Your task to perform on an android device: Clear all items from cart on costco. Add "usb-c to usb-b" to the cart on costco Image 0: 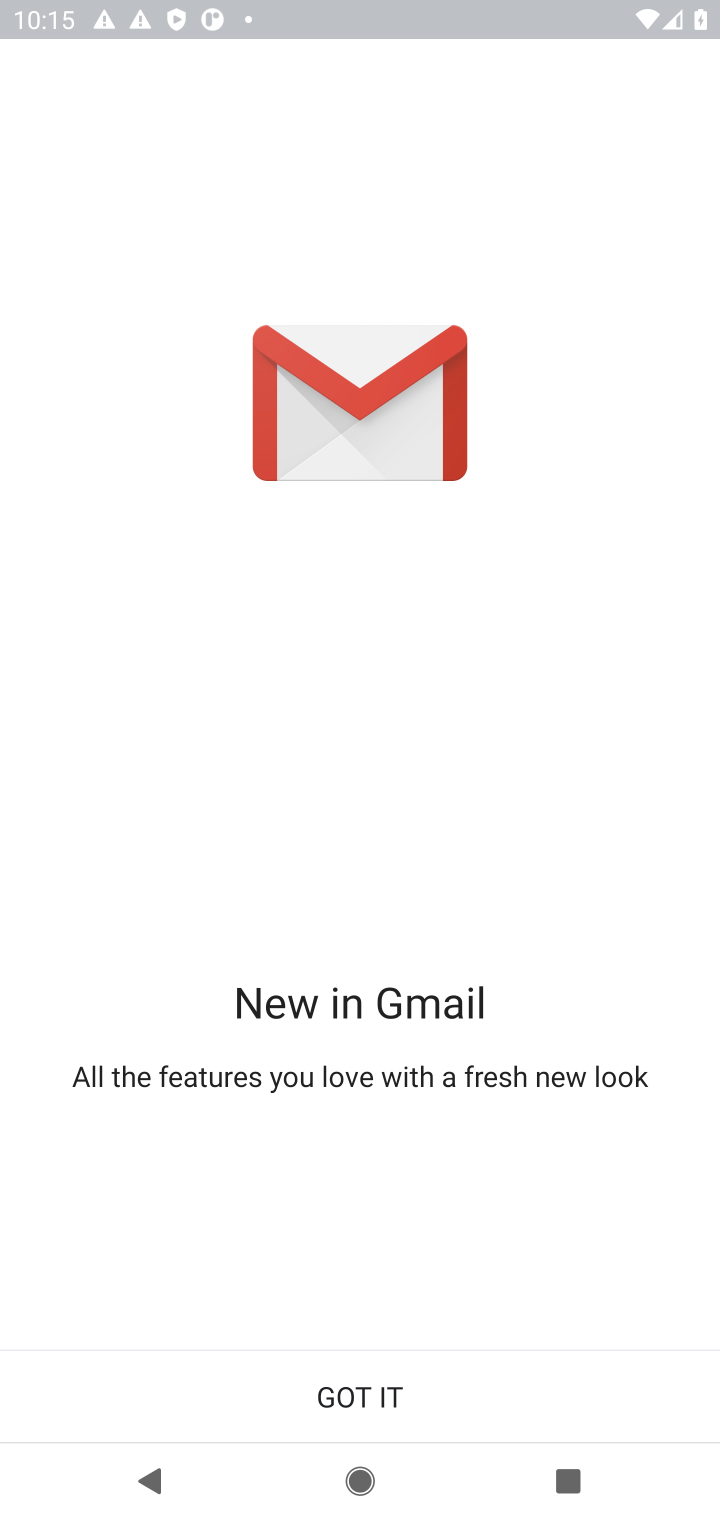
Step 0: press home button
Your task to perform on an android device: Clear all items from cart on costco. Add "usb-c to usb-b" to the cart on costco Image 1: 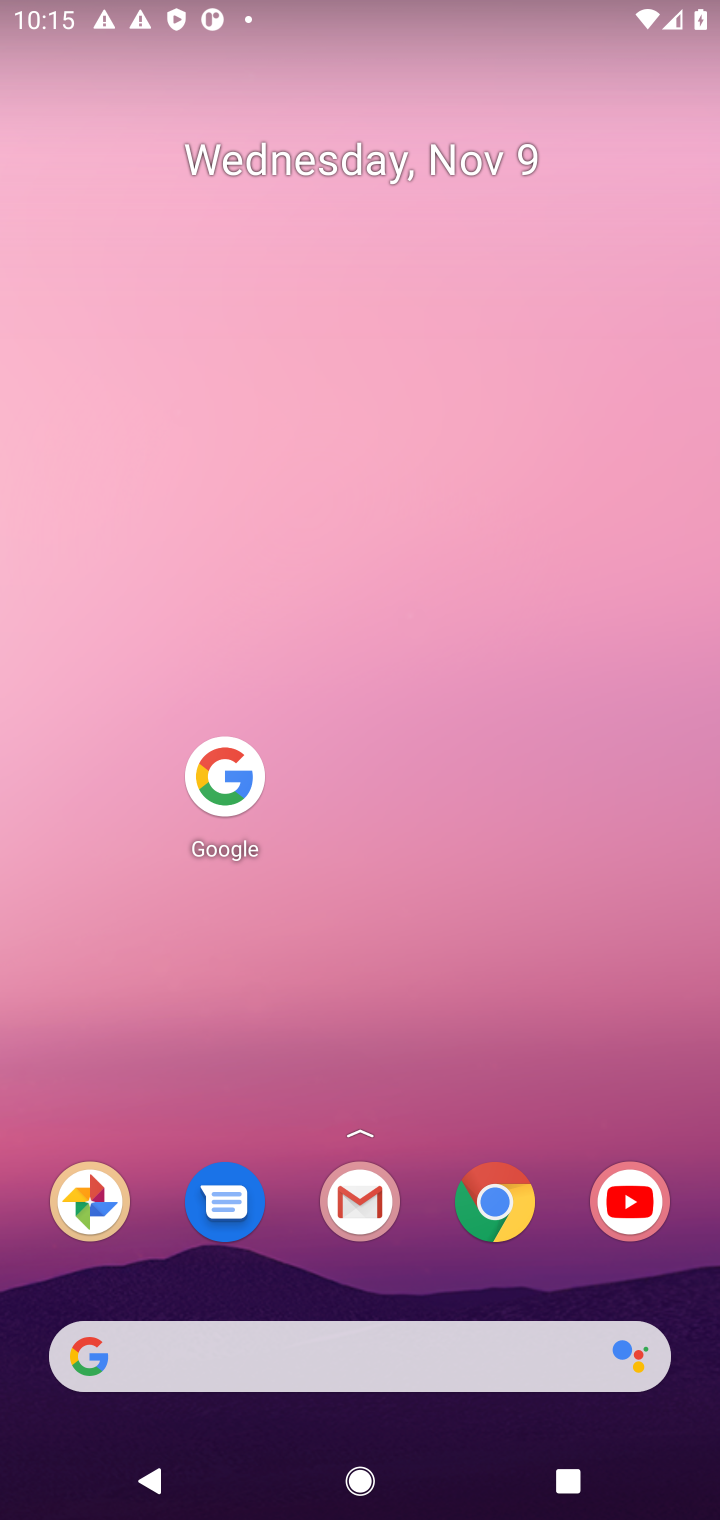
Step 1: click (219, 761)
Your task to perform on an android device: Clear all items from cart on costco. Add "usb-c to usb-b" to the cart on costco Image 2: 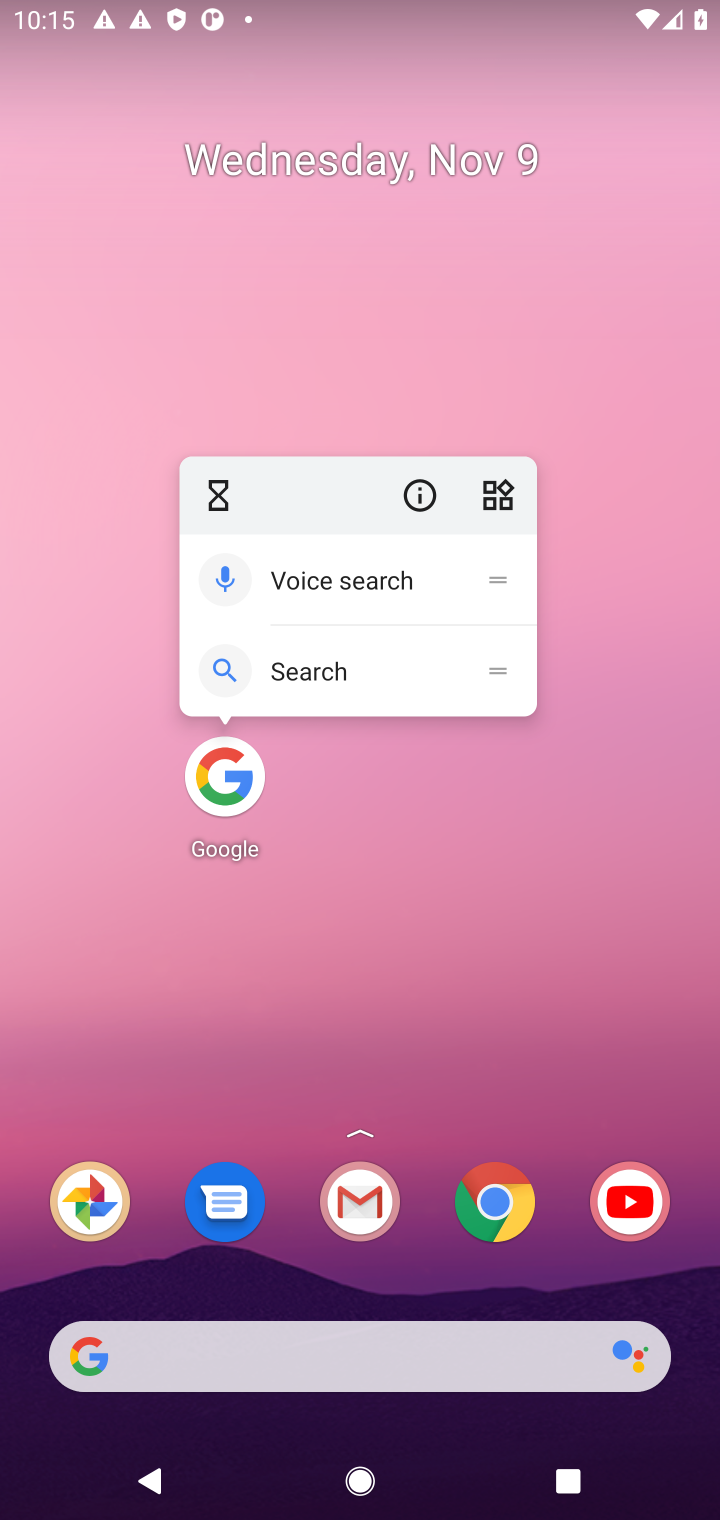
Step 2: click (219, 765)
Your task to perform on an android device: Clear all items from cart on costco. Add "usb-c to usb-b" to the cart on costco Image 3: 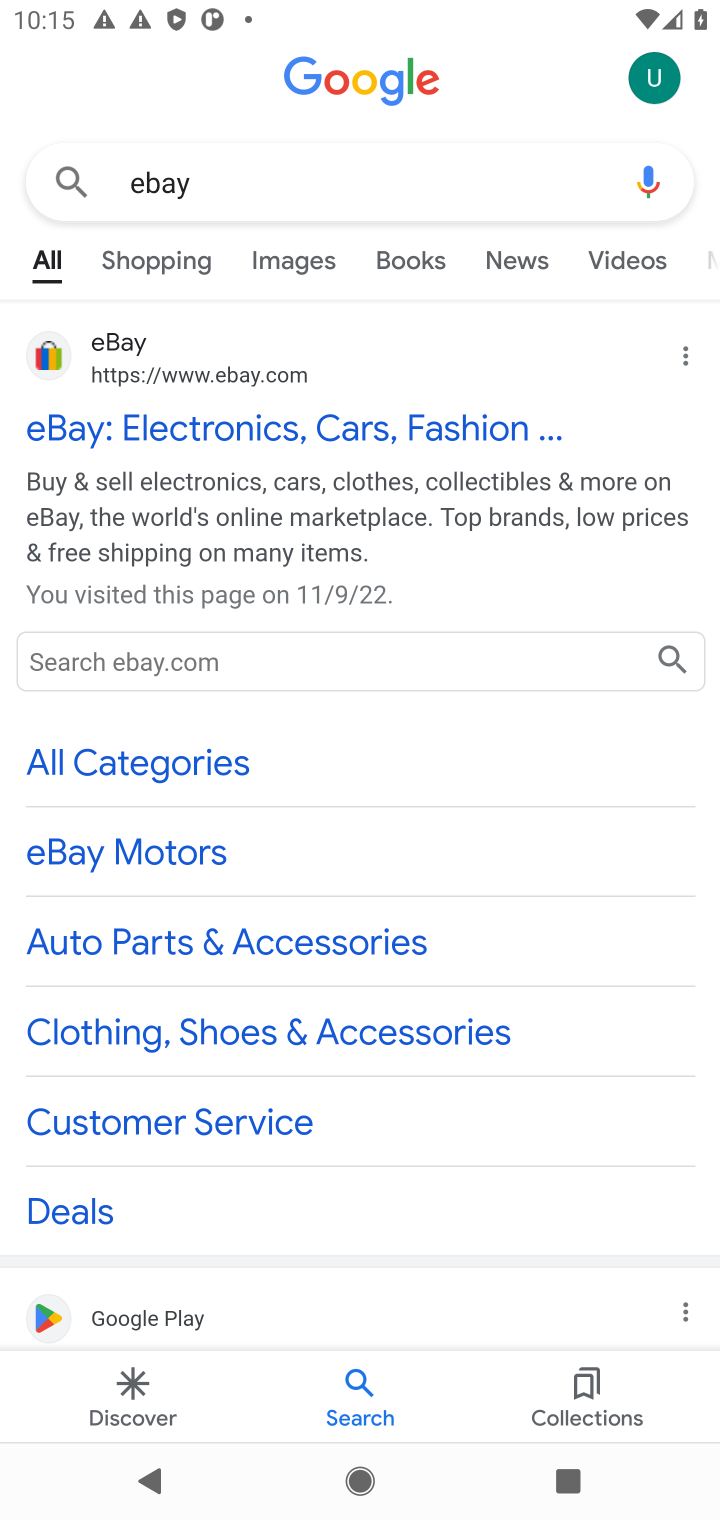
Step 3: click (246, 163)
Your task to perform on an android device: Clear all items from cart on costco. Add "usb-c to usb-b" to the cart on costco Image 4: 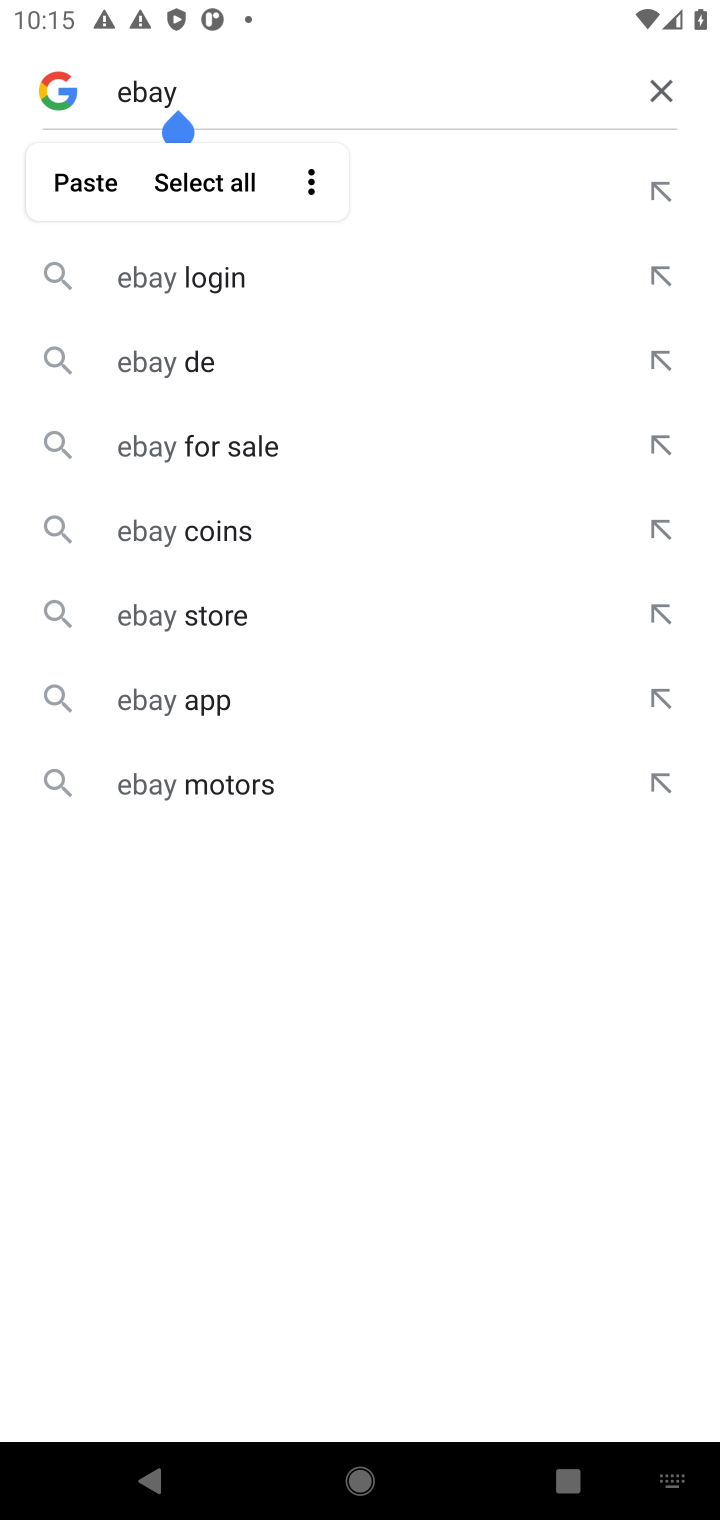
Step 4: click (669, 81)
Your task to perform on an android device: Clear all items from cart on costco. Add "usb-c to usb-b" to the cart on costco Image 5: 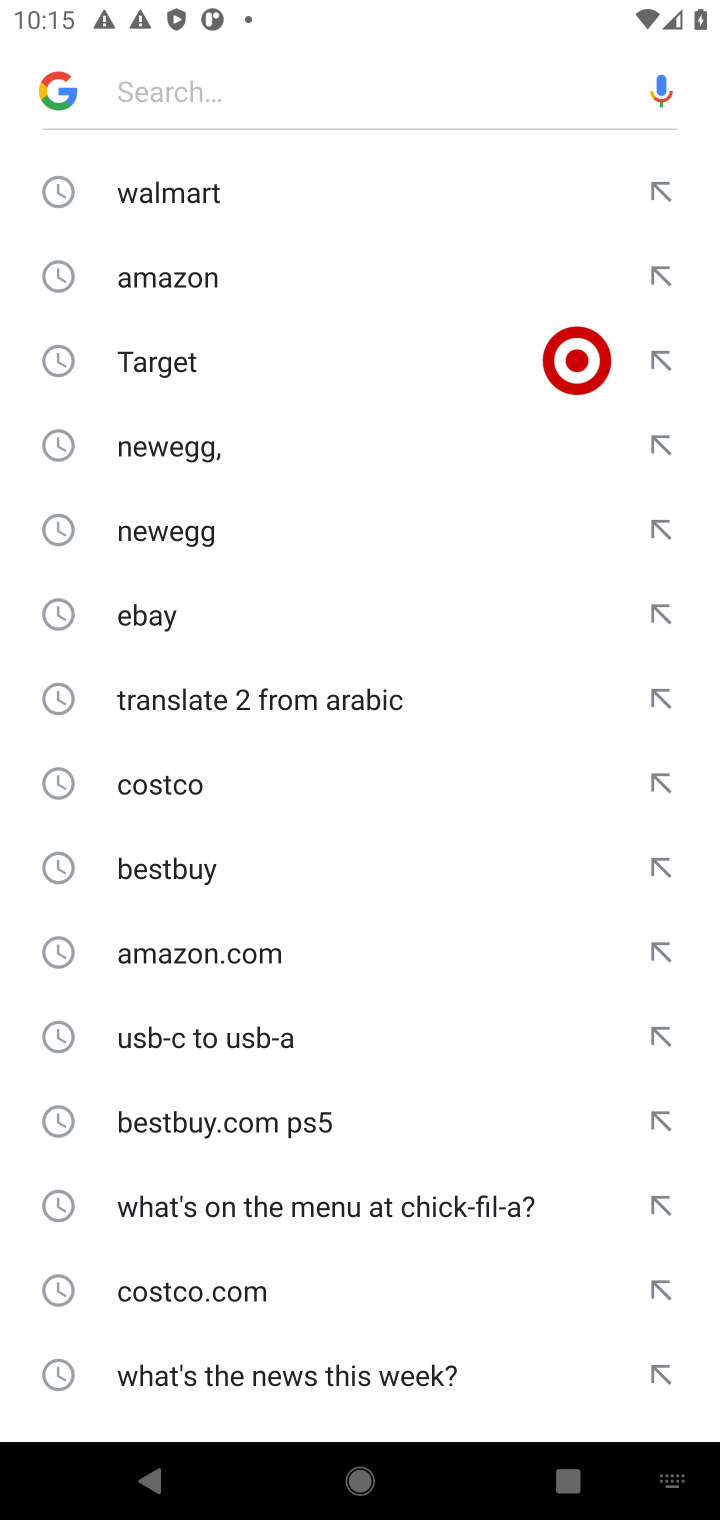
Step 5: click (140, 776)
Your task to perform on an android device: Clear all items from cart on costco. Add "usb-c to usb-b" to the cart on costco Image 6: 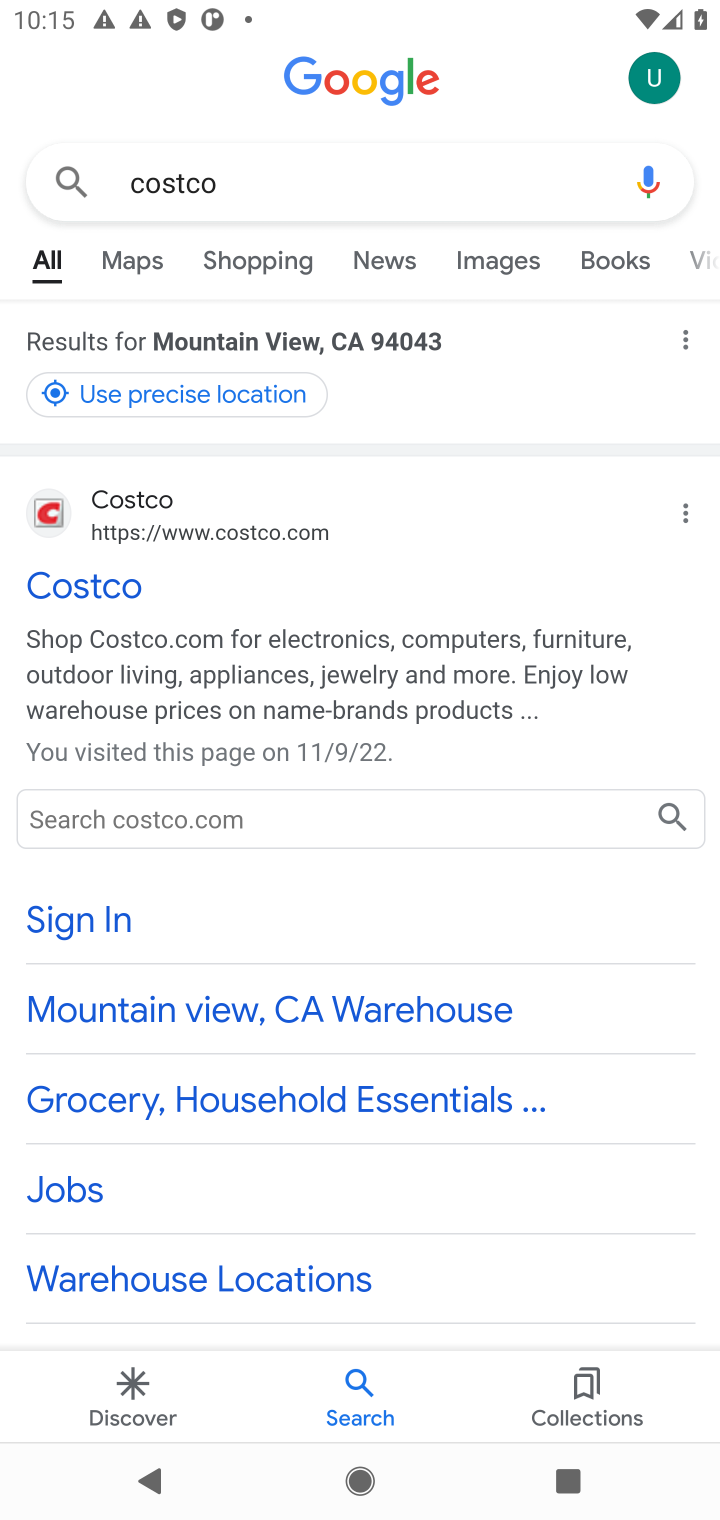
Step 6: click (101, 580)
Your task to perform on an android device: Clear all items from cart on costco. Add "usb-c to usb-b" to the cart on costco Image 7: 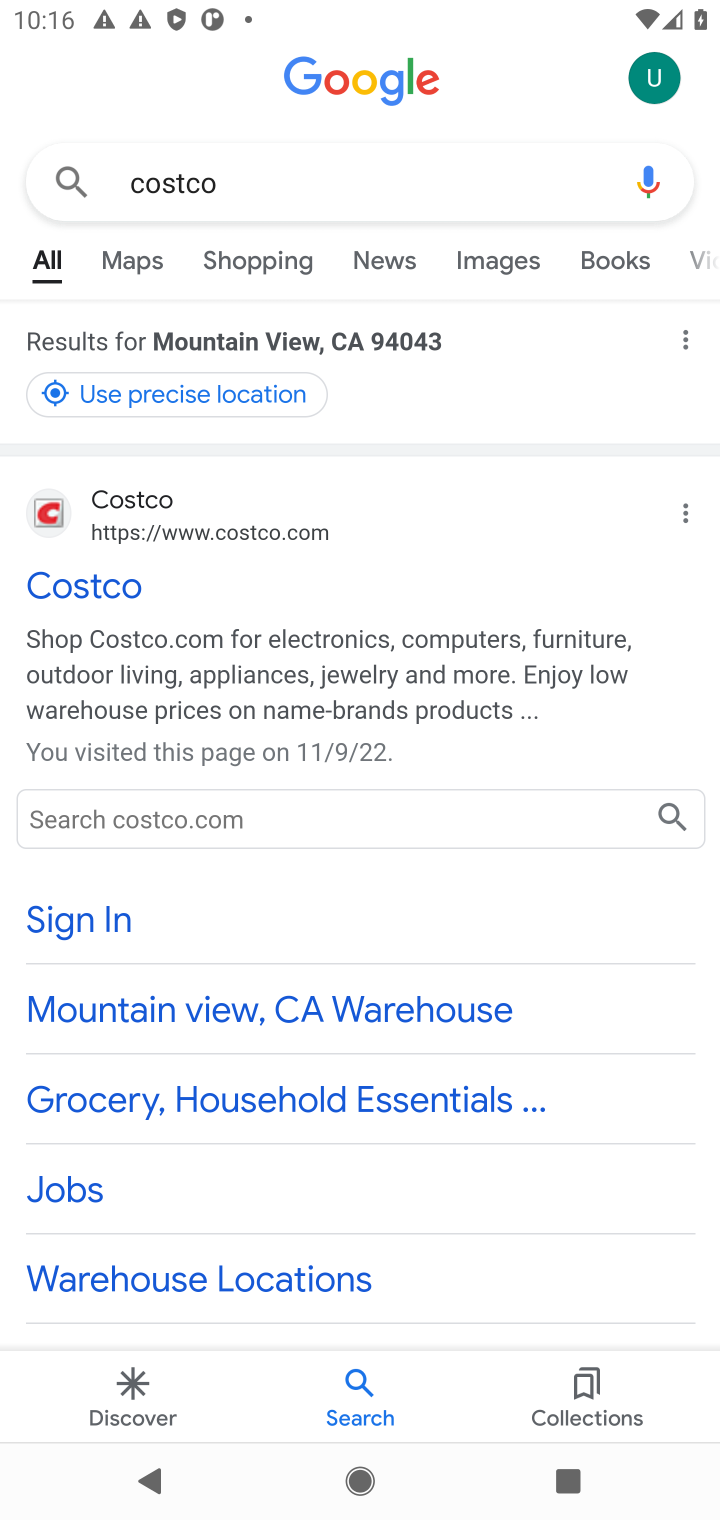
Step 7: click (106, 586)
Your task to perform on an android device: Clear all items from cart on costco. Add "usb-c to usb-b" to the cart on costco Image 8: 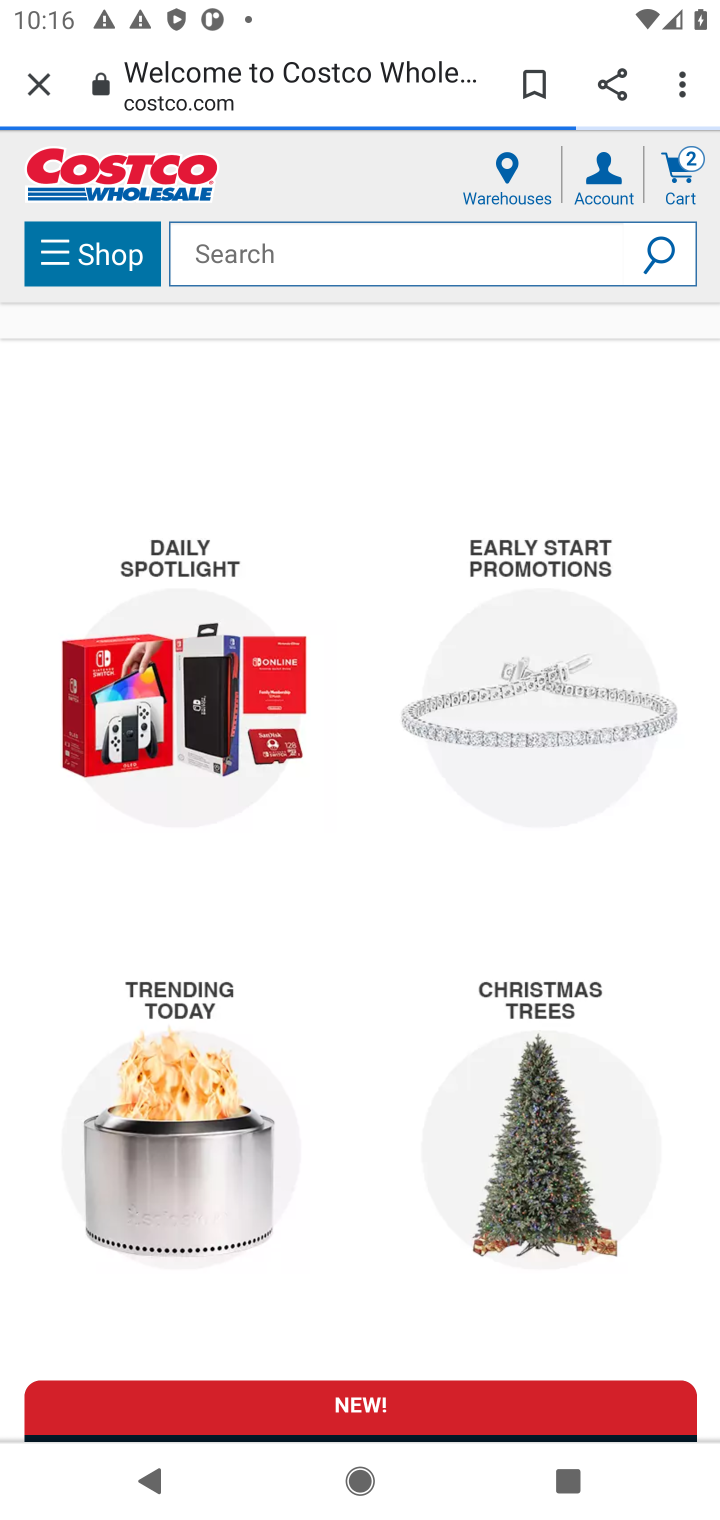
Step 8: click (333, 255)
Your task to perform on an android device: Clear all items from cart on costco. Add "usb-c to usb-b" to the cart on costco Image 9: 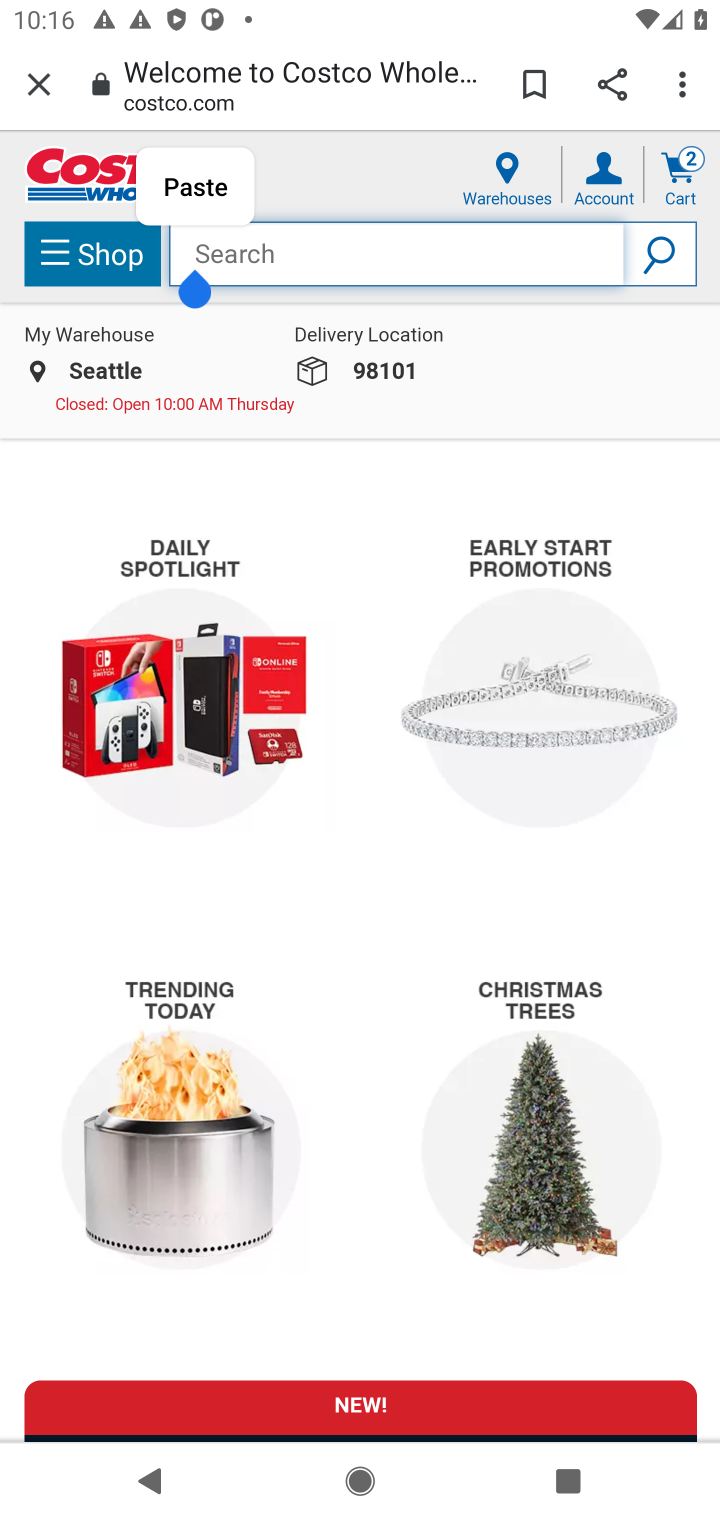
Step 9: type "usb-c to usb-b"
Your task to perform on an android device: Clear all items from cart on costco. Add "usb-c to usb-b" to the cart on costco Image 10: 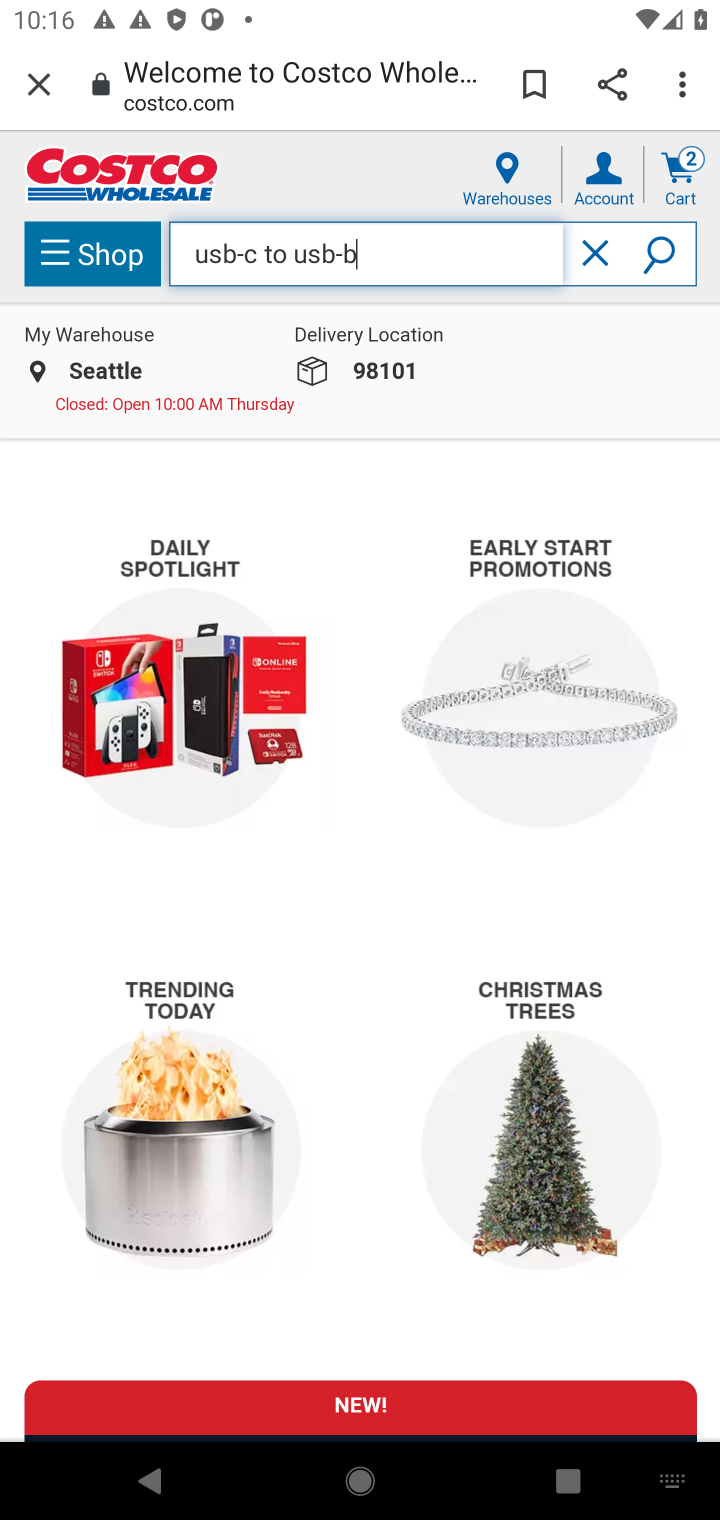
Step 10: press enter
Your task to perform on an android device: Clear all items from cart on costco. Add "usb-c to usb-b" to the cart on costco Image 11: 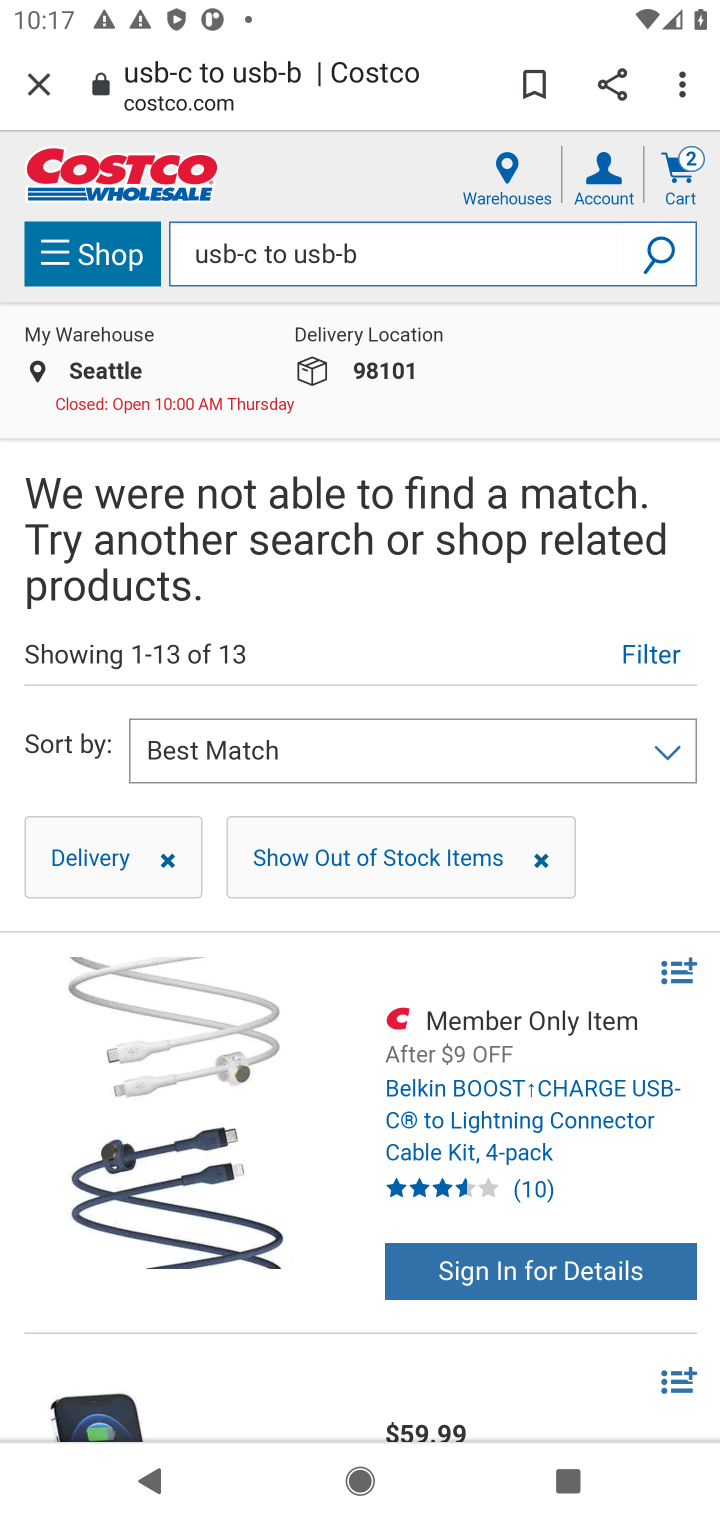
Step 11: task complete